Your task to perform on an android device: snooze an email in the gmail app Image 0: 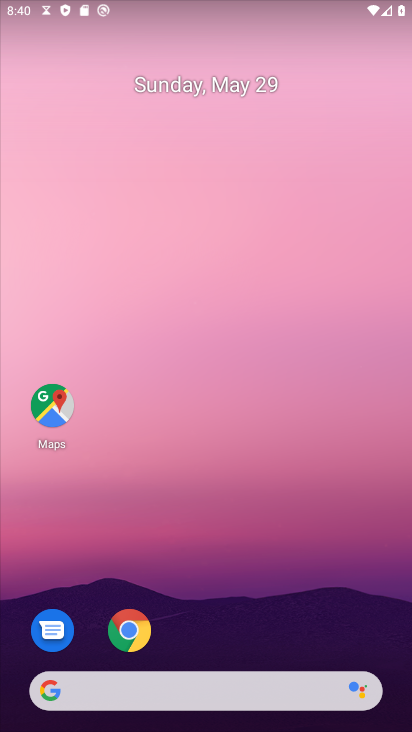
Step 0: drag from (273, 629) to (277, 308)
Your task to perform on an android device: snooze an email in the gmail app Image 1: 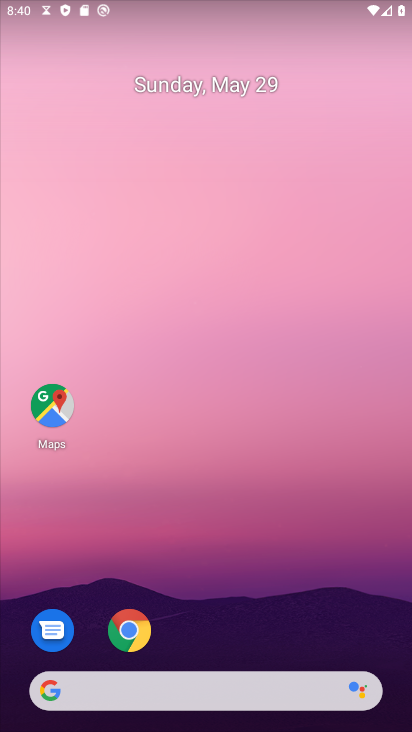
Step 1: drag from (287, 539) to (278, 210)
Your task to perform on an android device: snooze an email in the gmail app Image 2: 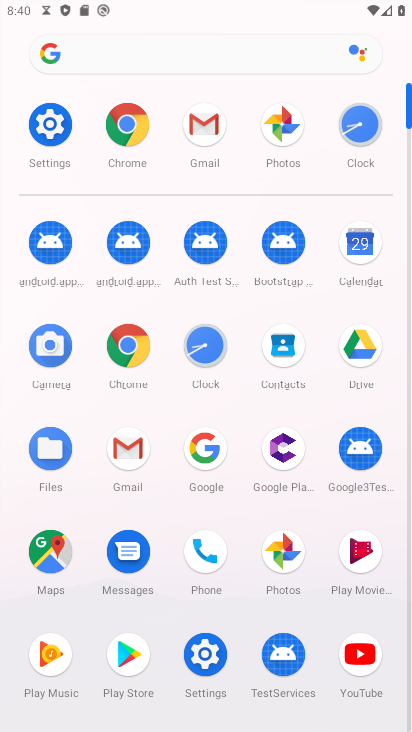
Step 2: click (203, 127)
Your task to perform on an android device: snooze an email in the gmail app Image 3: 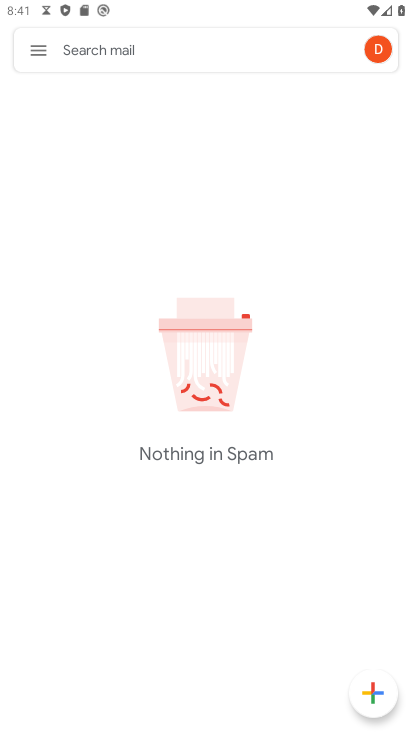
Step 3: click (46, 42)
Your task to perform on an android device: snooze an email in the gmail app Image 4: 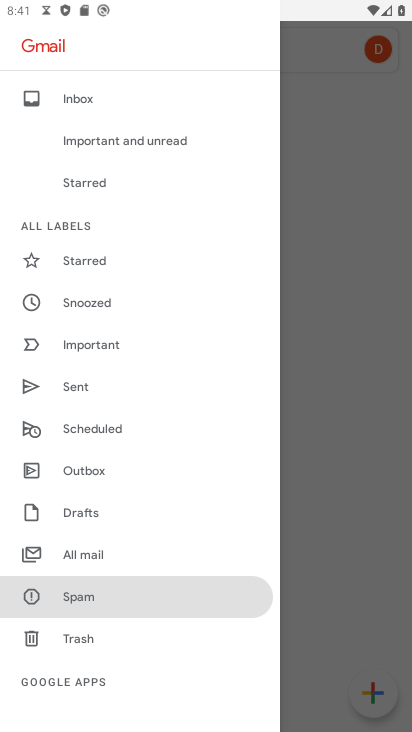
Step 4: click (84, 562)
Your task to perform on an android device: snooze an email in the gmail app Image 5: 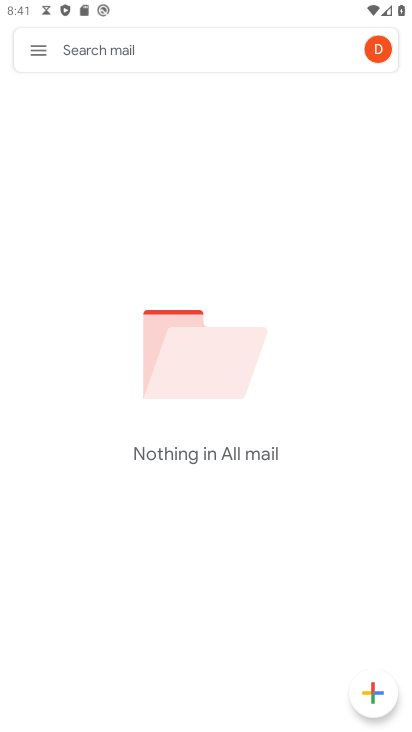
Step 5: task complete